Your task to perform on an android device: turn on wifi Image 0: 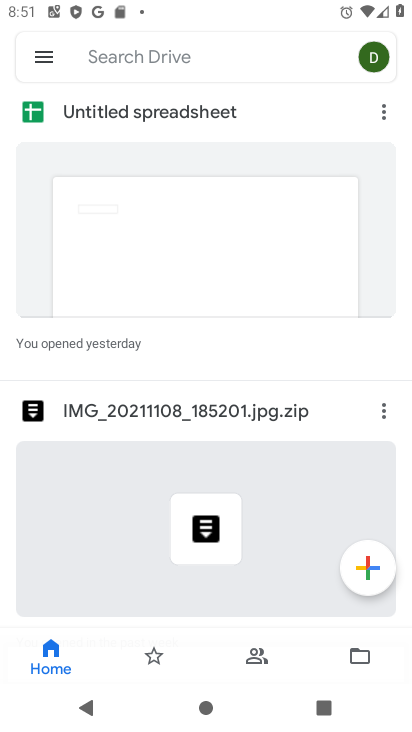
Step 0: press back button
Your task to perform on an android device: turn on wifi Image 1: 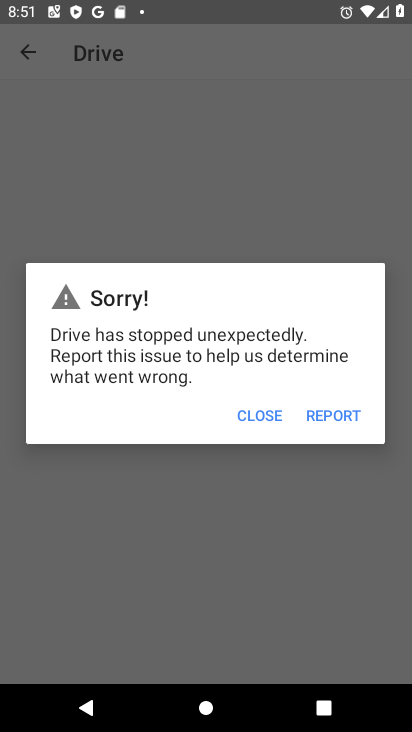
Step 1: press home button
Your task to perform on an android device: turn on wifi Image 2: 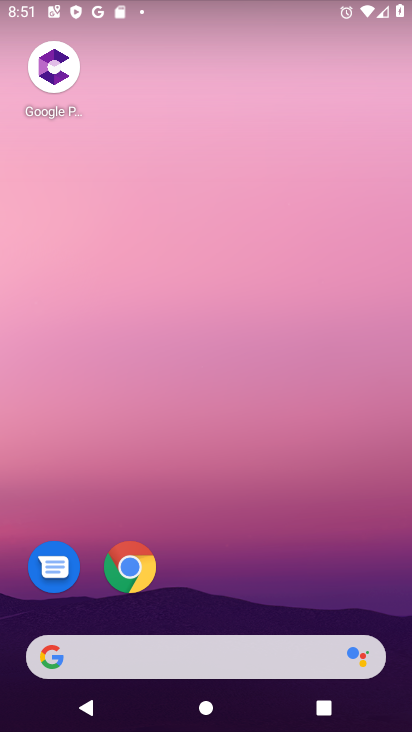
Step 2: drag from (232, 519) to (201, 0)
Your task to perform on an android device: turn on wifi Image 3: 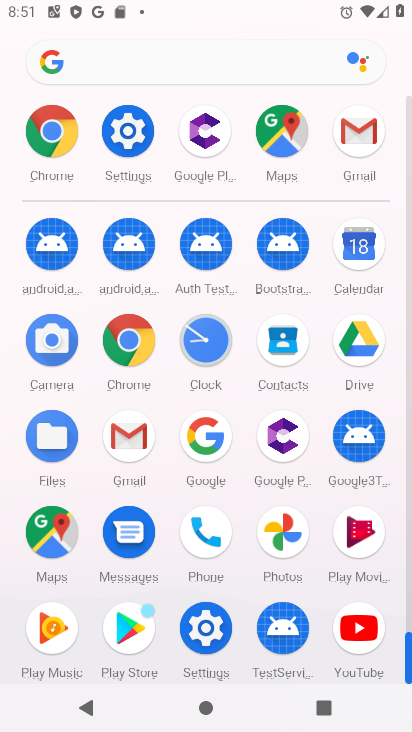
Step 3: drag from (10, 547) to (26, 254)
Your task to perform on an android device: turn on wifi Image 4: 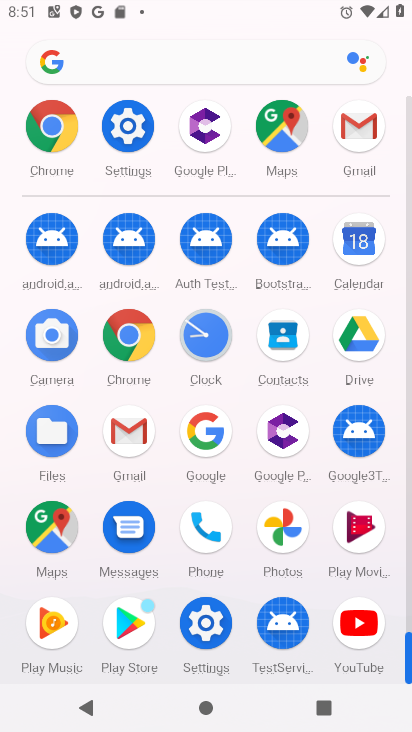
Step 4: click (200, 623)
Your task to perform on an android device: turn on wifi Image 5: 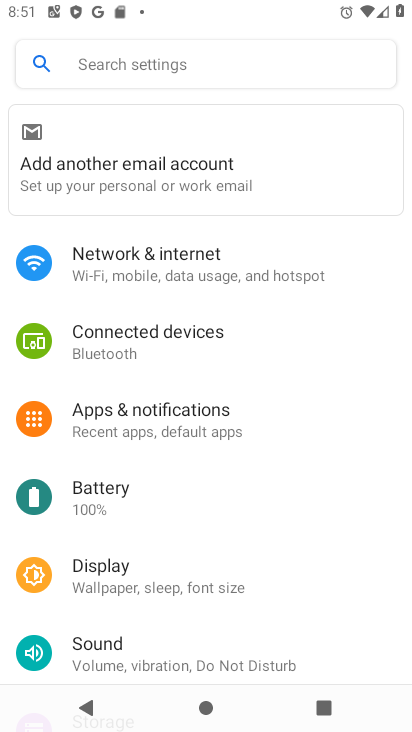
Step 5: click (183, 258)
Your task to perform on an android device: turn on wifi Image 6: 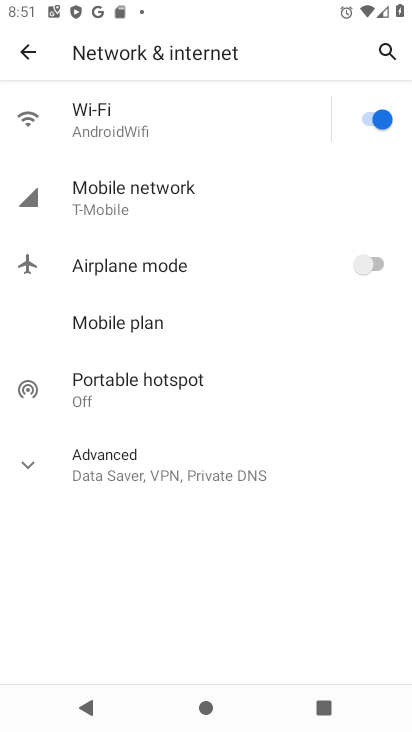
Step 6: click (48, 458)
Your task to perform on an android device: turn on wifi Image 7: 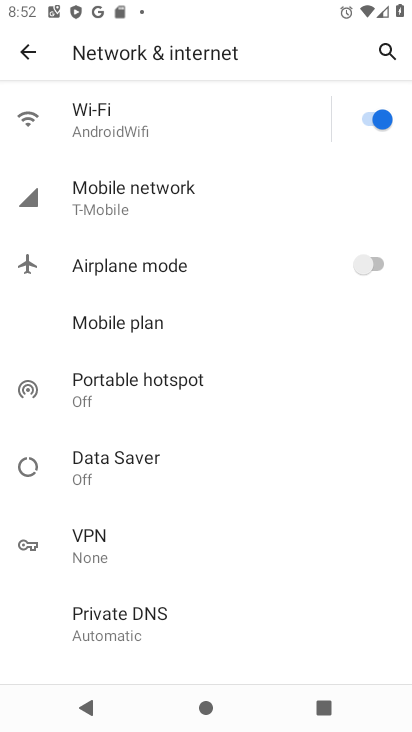
Step 7: task complete